Your task to perform on an android device: Go to Google maps Image 0: 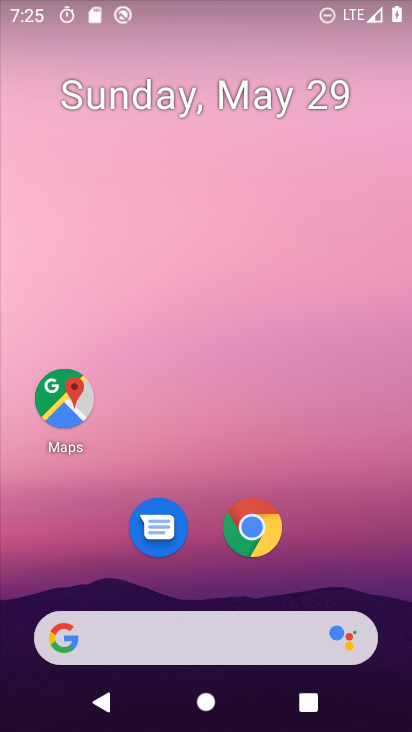
Step 0: drag from (408, 640) to (339, 57)
Your task to perform on an android device: Go to Google maps Image 1: 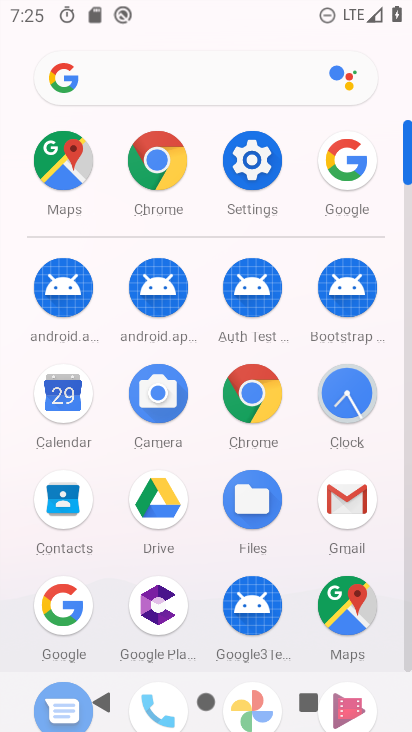
Step 1: click (354, 618)
Your task to perform on an android device: Go to Google maps Image 2: 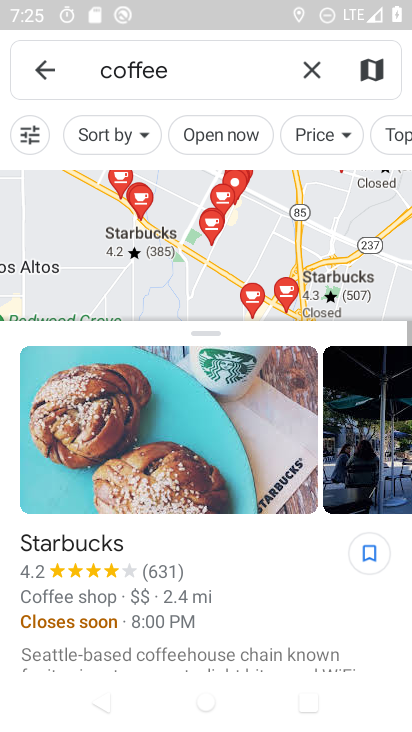
Step 2: click (307, 68)
Your task to perform on an android device: Go to Google maps Image 3: 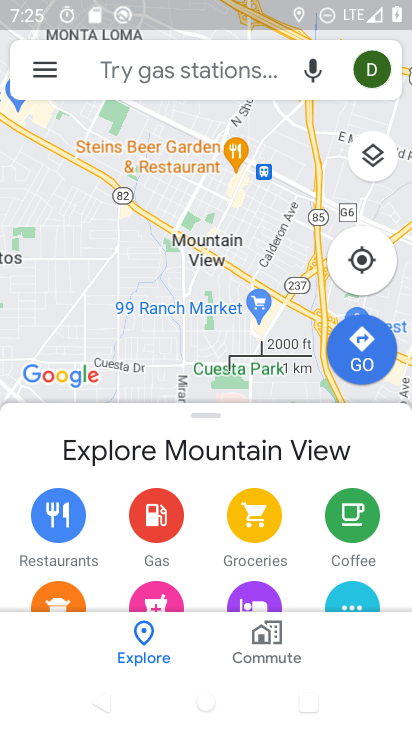
Step 3: task complete